Your task to perform on an android device: visit the assistant section in the google photos Image 0: 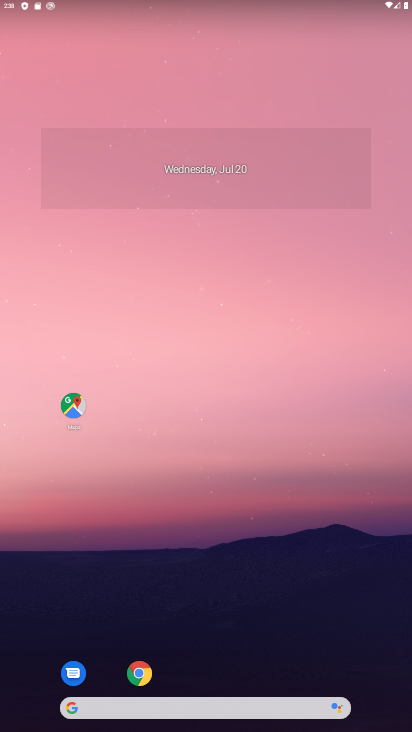
Step 0: drag from (219, 603) to (222, 183)
Your task to perform on an android device: visit the assistant section in the google photos Image 1: 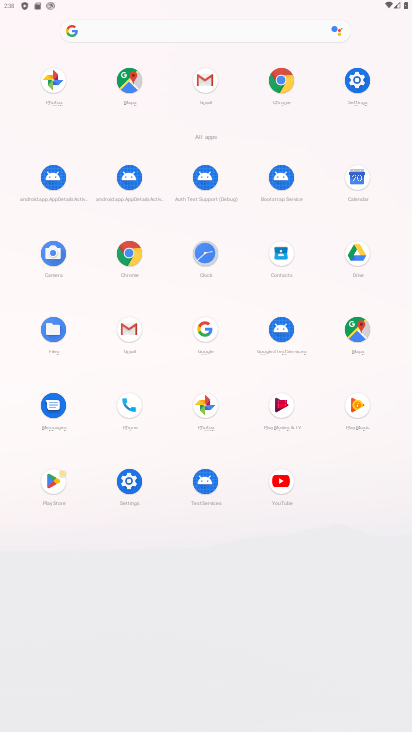
Step 1: click (199, 393)
Your task to perform on an android device: visit the assistant section in the google photos Image 2: 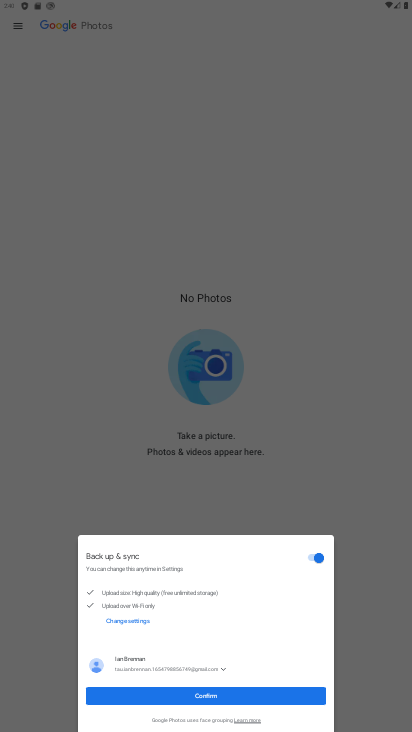
Step 2: task complete